Your task to perform on an android device: turn off improve location accuracy Image 0: 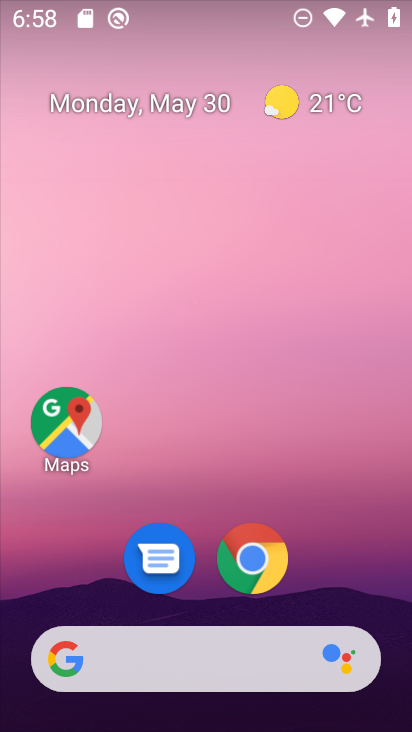
Step 0: drag from (334, 549) to (250, 44)
Your task to perform on an android device: turn off improve location accuracy Image 1: 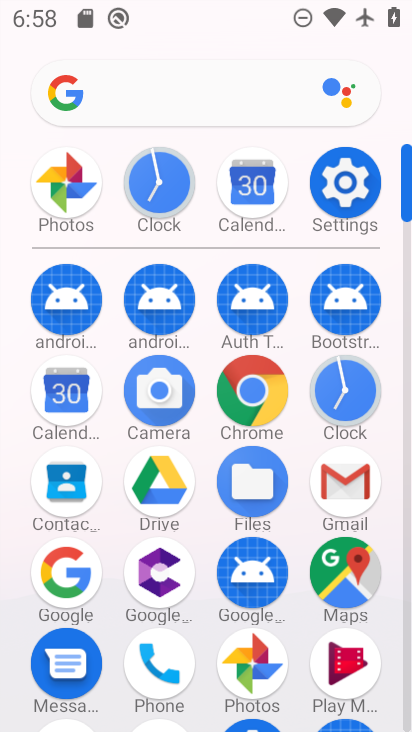
Step 1: click (348, 178)
Your task to perform on an android device: turn off improve location accuracy Image 2: 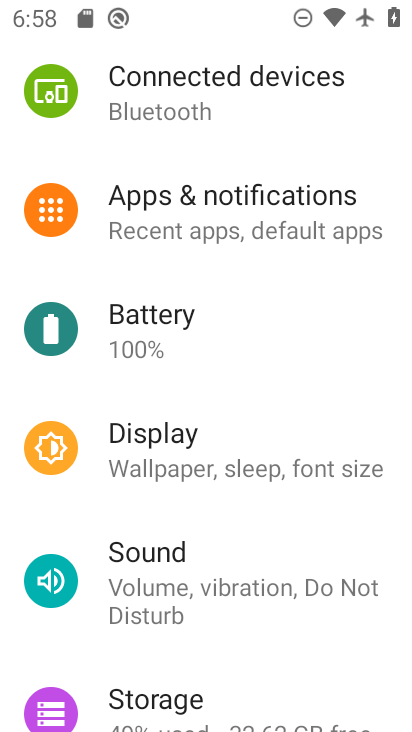
Step 2: drag from (260, 565) to (225, 149)
Your task to perform on an android device: turn off improve location accuracy Image 3: 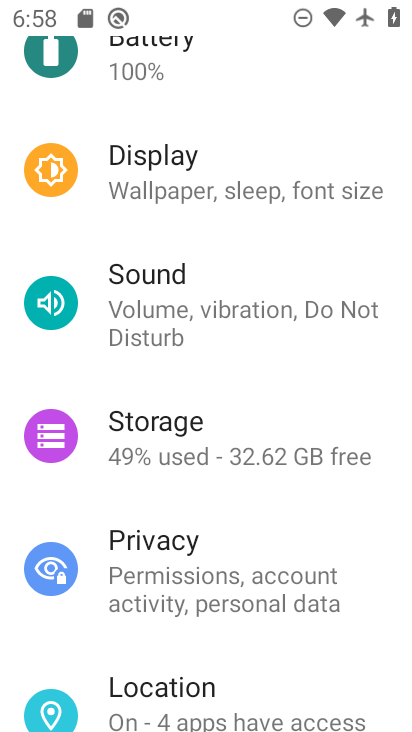
Step 3: click (182, 681)
Your task to perform on an android device: turn off improve location accuracy Image 4: 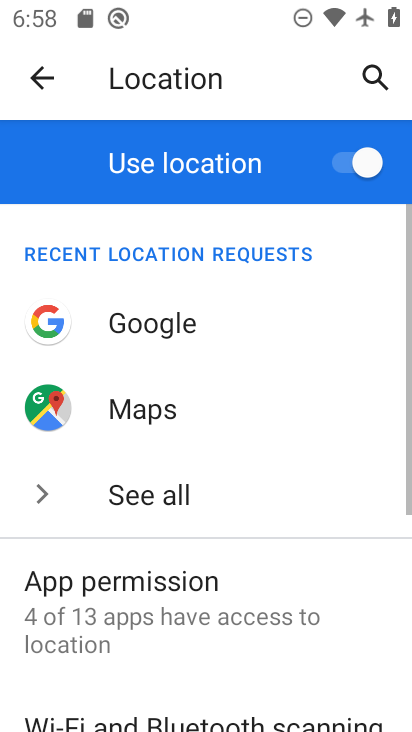
Step 4: drag from (254, 638) to (250, 324)
Your task to perform on an android device: turn off improve location accuracy Image 5: 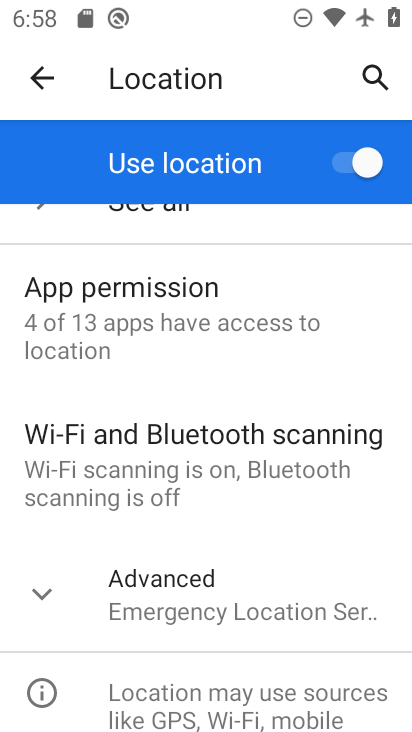
Step 5: drag from (291, 351) to (272, 139)
Your task to perform on an android device: turn off improve location accuracy Image 6: 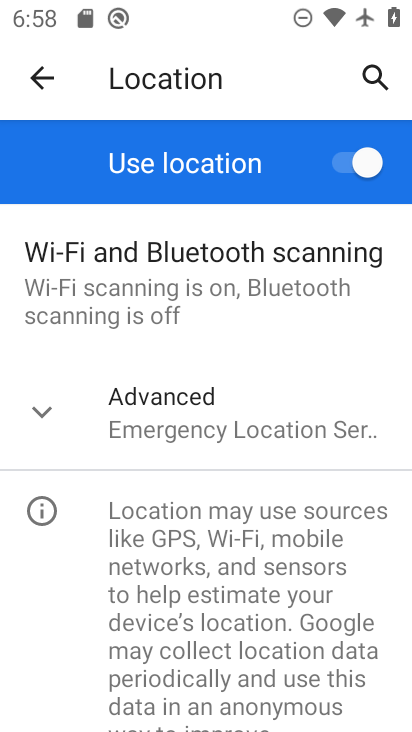
Step 6: click (50, 528)
Your task to perform on an android device: turn off improve location accuracy Image 7: 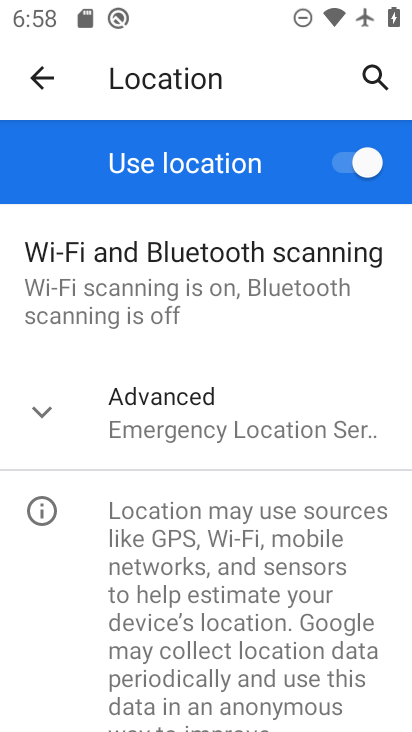
Step 7: drag from (212, 621) to (212, 312)
Your task to perform on an android device: turn off improve location accuracy Image 8: 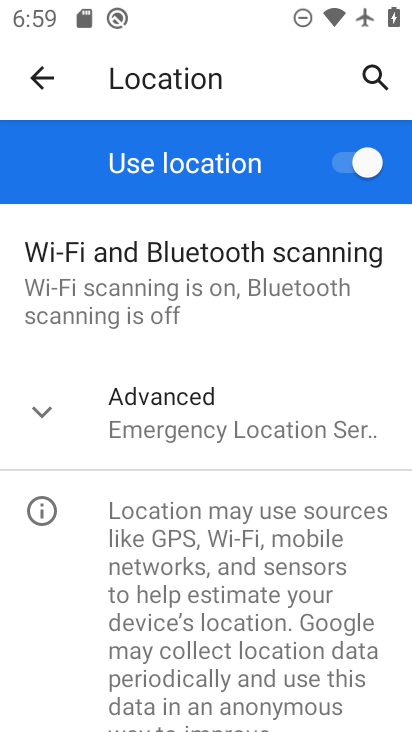
Step 8: drag from (306, 373) to (229, 95)
Your task to perform on an android device: turn off improve location accuracy Image 9: 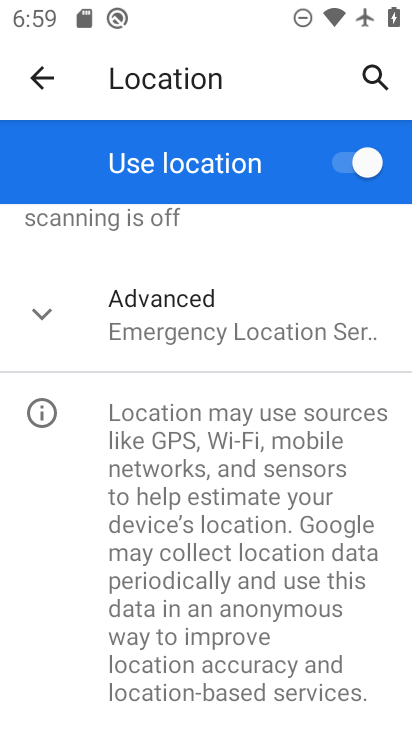
Step 9: drag from (357, 631) to (318, 405)
Your task to perform on an android device: turn off improve location accuracy Image 10: 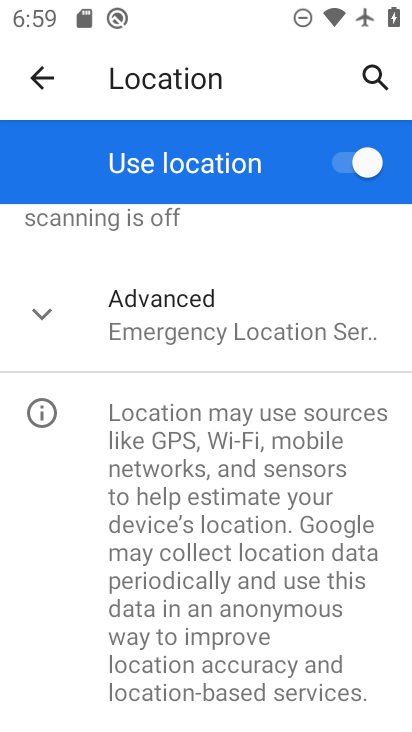
Step 10: click (44, 312)
Your task to perform on an android device: turn off improve location accuracy Image 11: 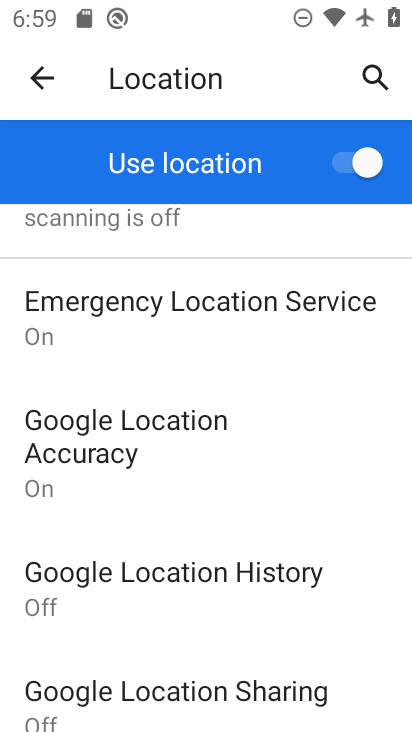
Step 11: click (121, 435)
Your task to perform on an android device: turn off improve location accuracy Image 12: 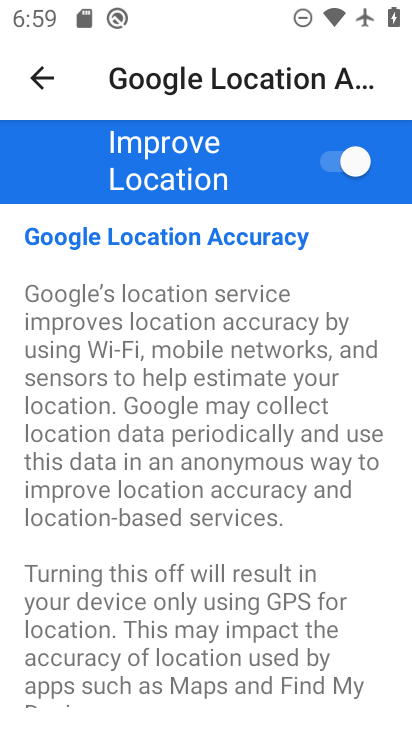
Step 12: click (354, 156)
Your task to perform on an android device: turn off improve location accuracy Image 13: 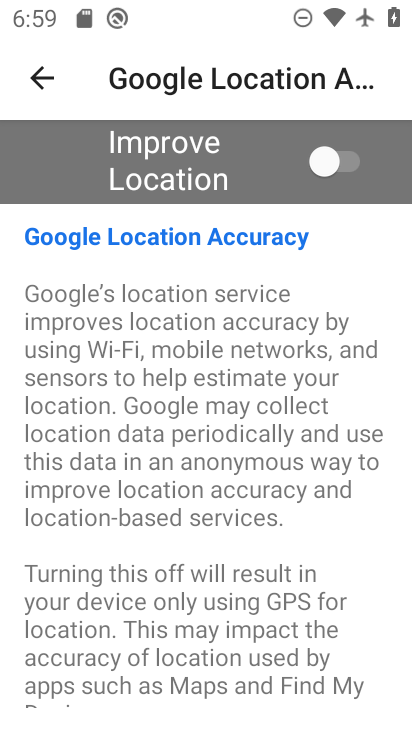
Step 13: task complete